Your task to perform on an android device: turn notification dots off Image 0: 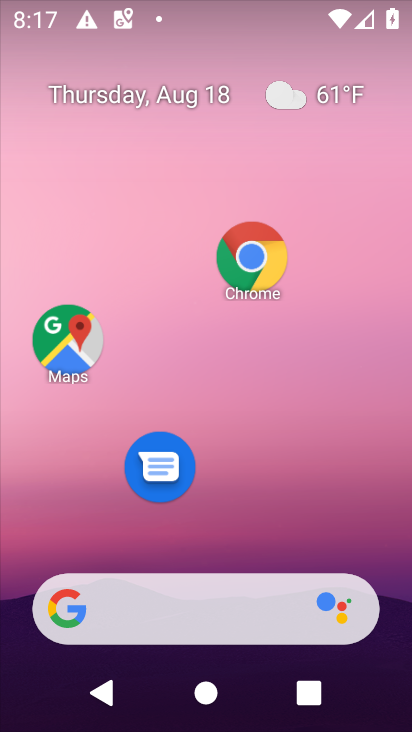
Step 0: drag from (312, 454) to (354, 10)
Your task to perform on an android device: turn notification dots off Image 1: 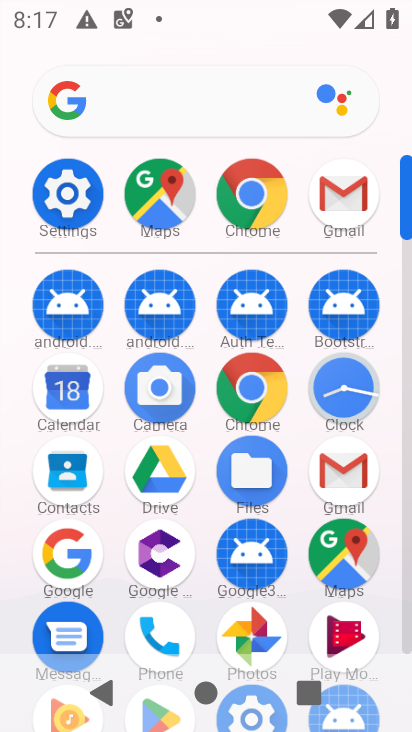
Step 1: task complete